Your task to perform on an android device: change notifications settings Image 0: 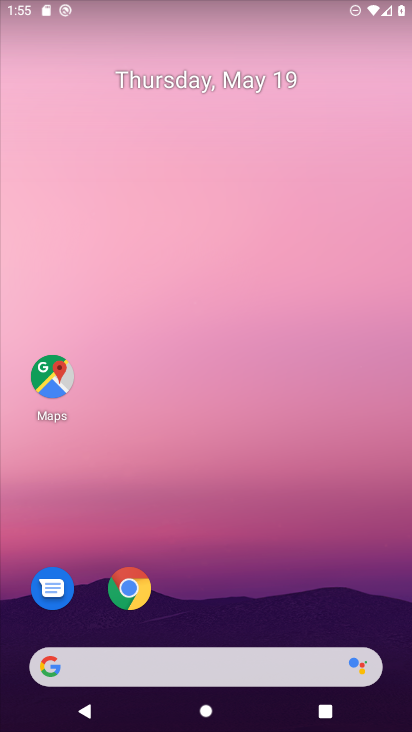
Step 0: drag from (354, 636) to (315, 5)
Your task to perform on an android device: change notifications settings Image 1: 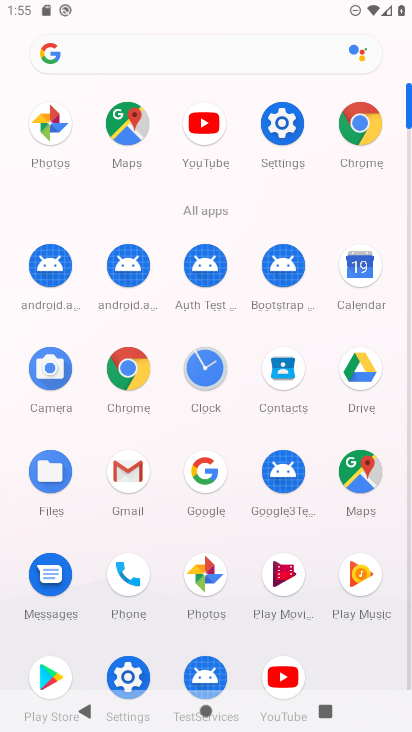
Step 1: click (284, 125)
Your task to perform on an android device: change notifications settings Image 2: 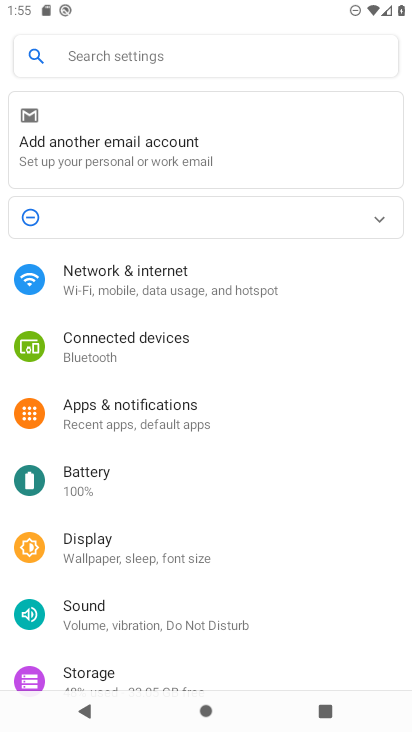
Step 2: click (88, 407)
Your task to perform on an android device: change notifications settings Image 3: 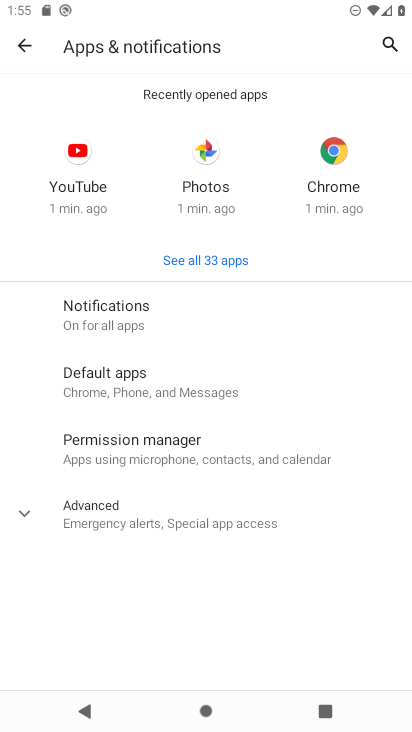
Step 3: click (93, 311)
Your task to perform on an android device: change notifications settings Image 4: 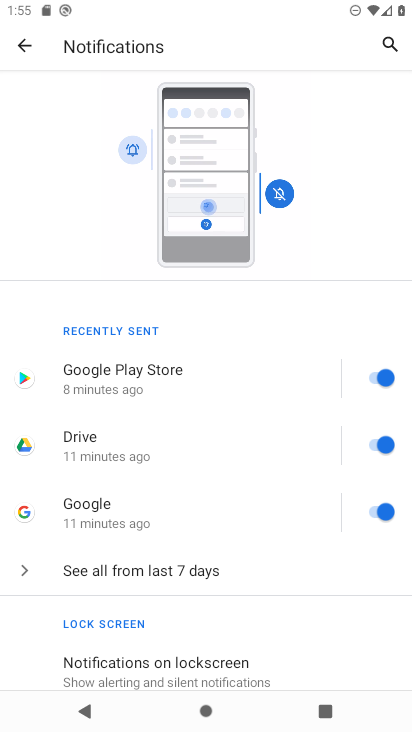
Step 4: click (165, 568)
Your task to perform on an android device: change notifications settings Image 5: 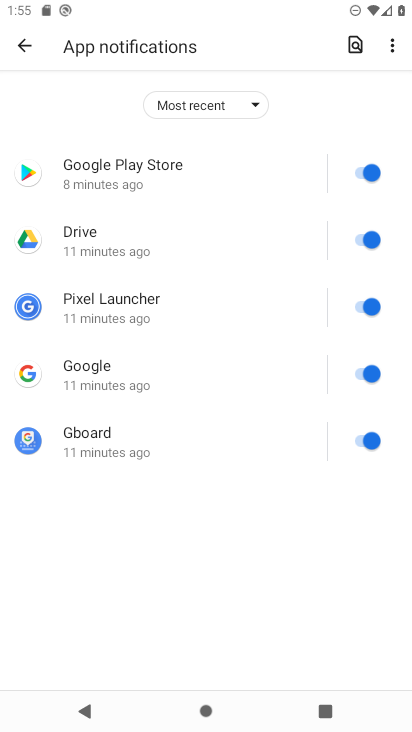
Step 5: click (255, 99)
Your task to perform on an android device: change notifications settings Image 6: 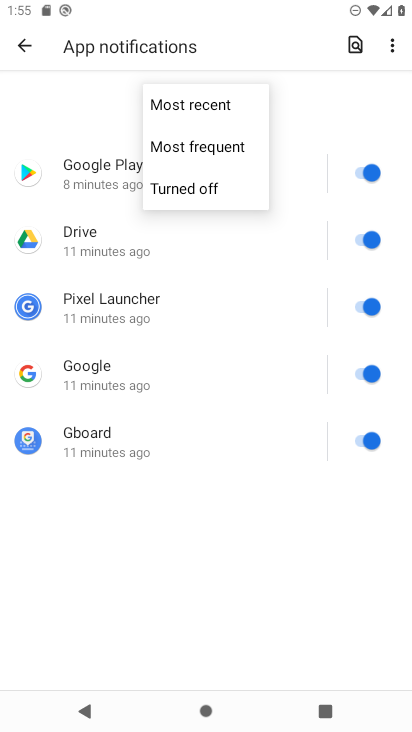
Step 6: click (173, 198)
Your task to perform on an android device: change notifications settings Image 7: 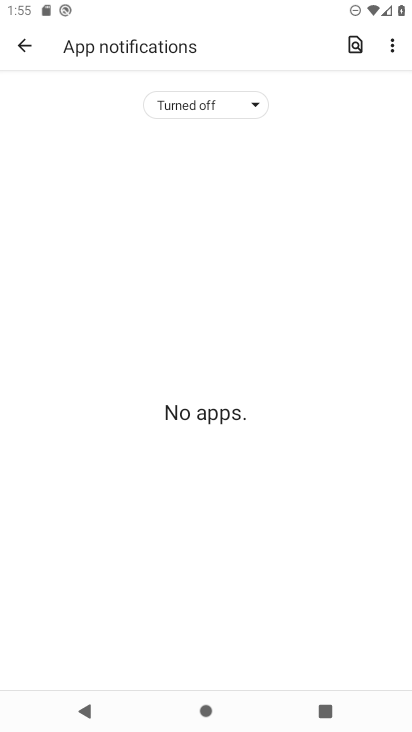
Step 7: task complete